Your task to perform on an android device: turn off location history Image 0: 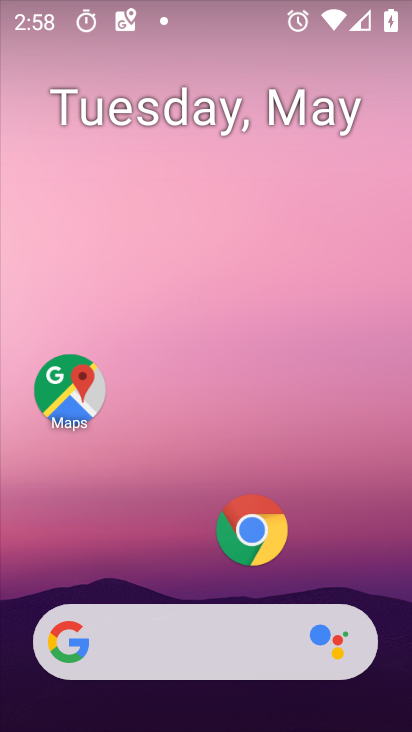
Step 0: drag from (212, 583) to (332, 48)
Your task to perform on an android device: turn off location history Image 1: 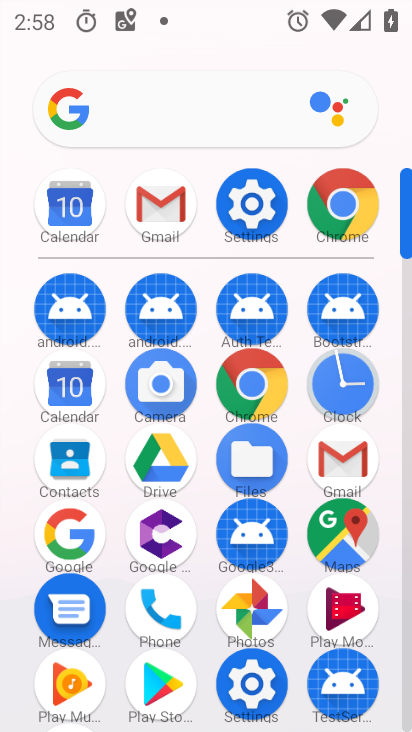
Step 1: click (270, 206)
Your task to perform on an android device: turn off location history Image 2: 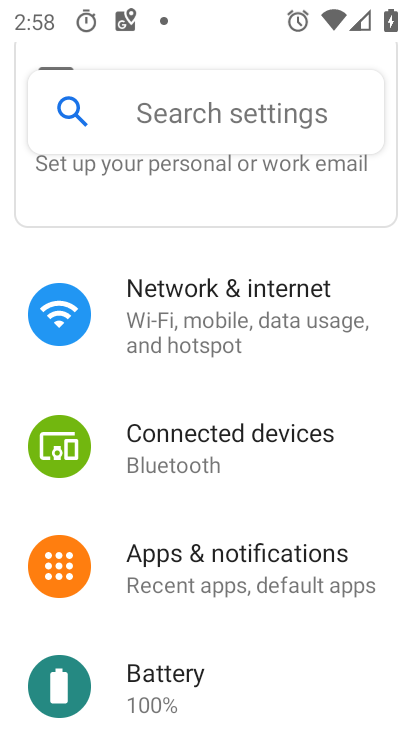
Step 2: drag from (322, 612) to (289, 170)
Your task to perform on an android device: turn off location history Image 3: 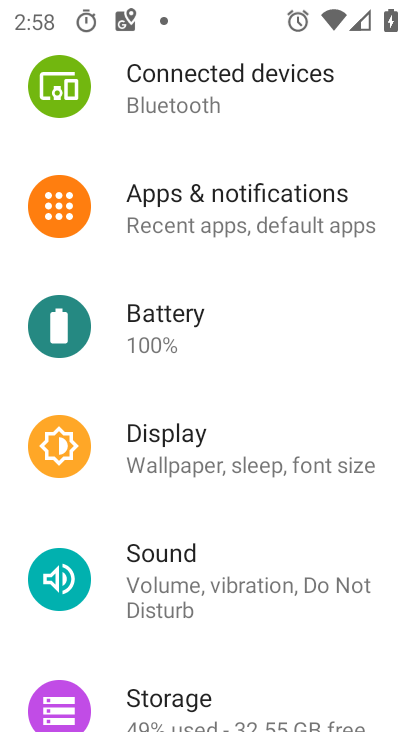
Step 3: drag from (96, 525) to (71, 162)
Your task to perform on an android device: turn off location history Image 4: 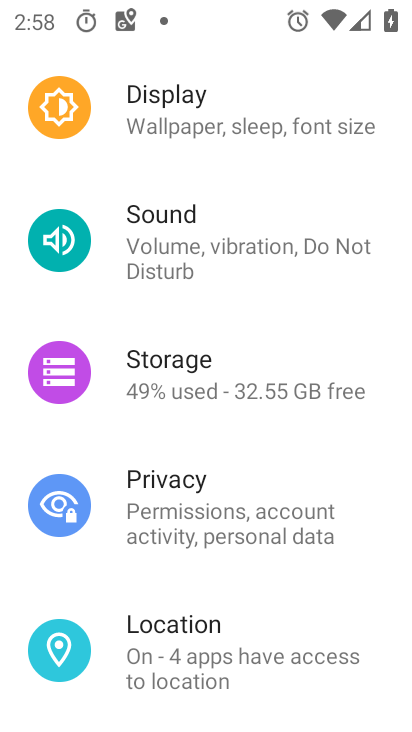
Step 4: click (194, 654)
Your task to perform on an android device: turn off location history Image 5: 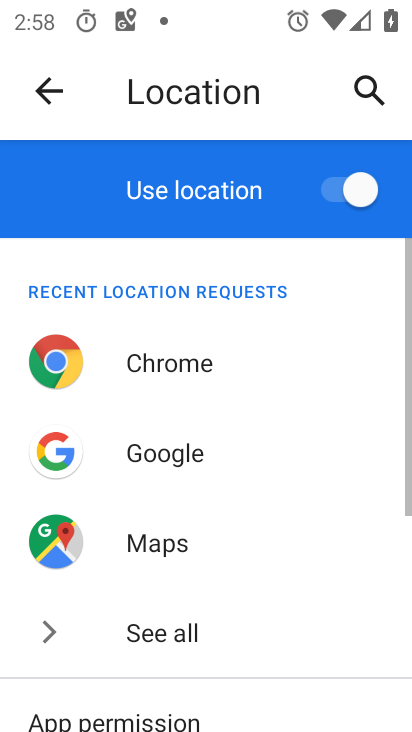
Step 5: drag from (193, 630) to (159, 127)
Your task to perform on an android device: turn off location history Image 6: 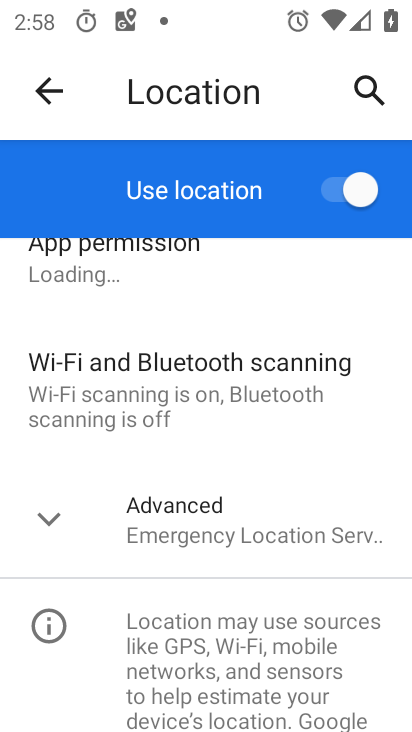
Step 6: click (216, 535)
Your task to perform on an android device: turn off location history Image 7: 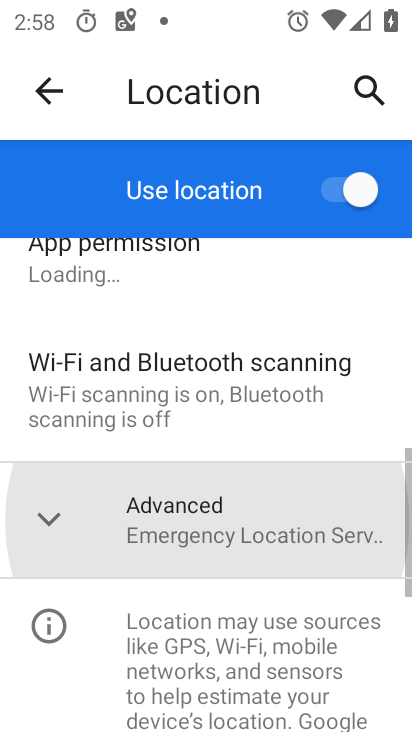
Step 7: drag from (216, 535) to (157, 140)
Your task to perform on an android device: turn off location history Image 8: 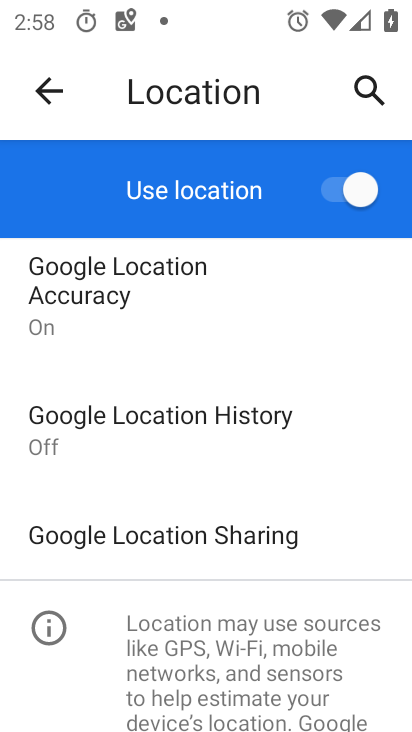
Step 8: click (216, 428)
Your task to perform on an android device: turn off location history Image 9: 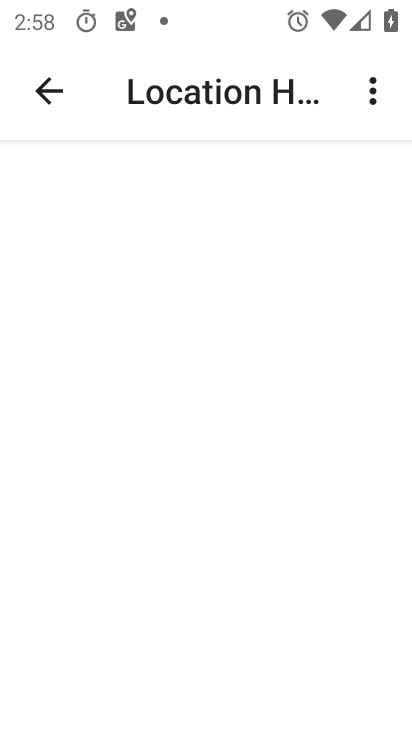
Step 9: task complete